Your task to perform on an android device: turn off location Image 0: 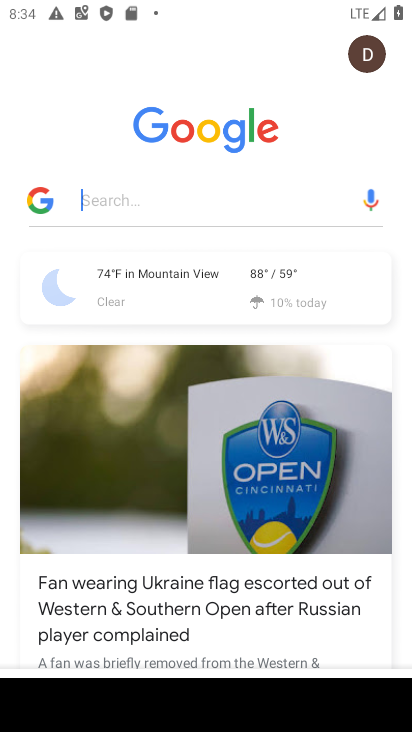
Step 0: drag from (243, 557) to (247, 291)
Your task to perform on an android device: turn off location Image 1: 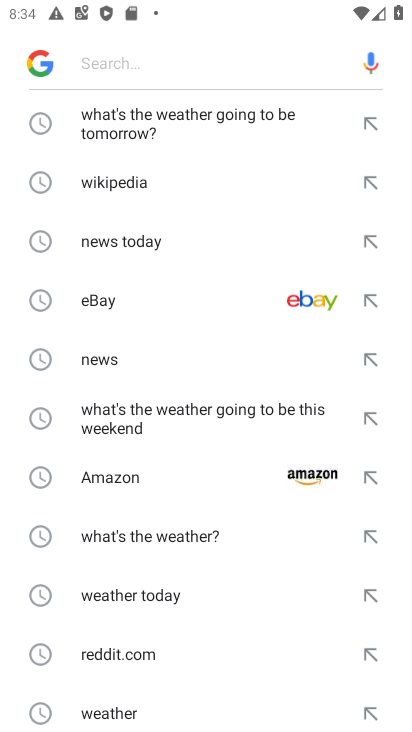
Step 1: press home button
Your task to perform on an android device: turn off location Image 2: 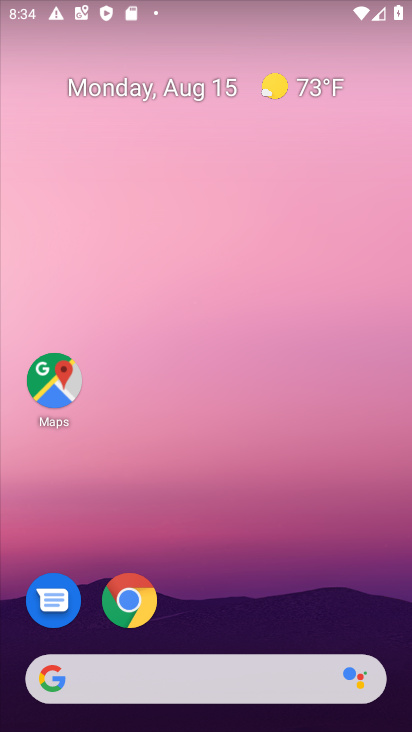
Step 2: drag from (219, 598) to (219, 26)
Your task to perform on an android device: turn off location Image 3: 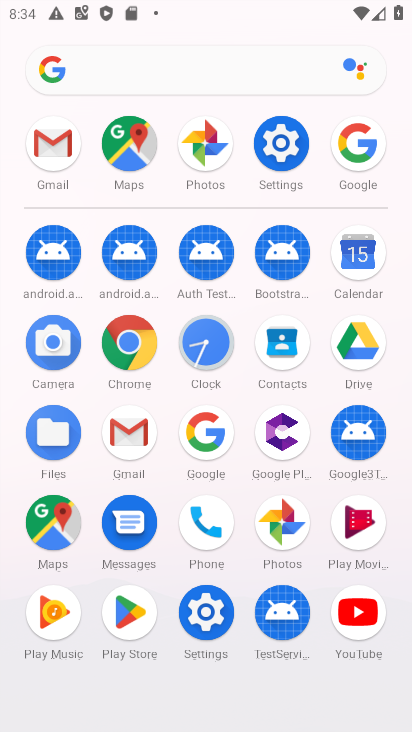
Step 3: click (259, 143)
Your task to perform on an android device: turn off location Image 4: 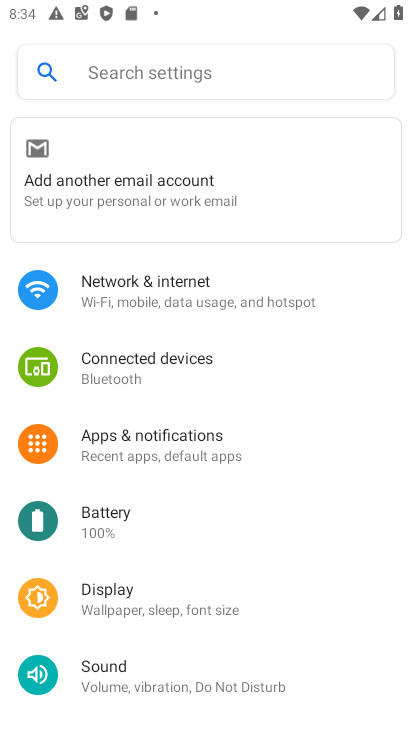
Step 4: drag from (127, 628) to (99, 343)
Your task to perform on an android device: turn off location Image 5: 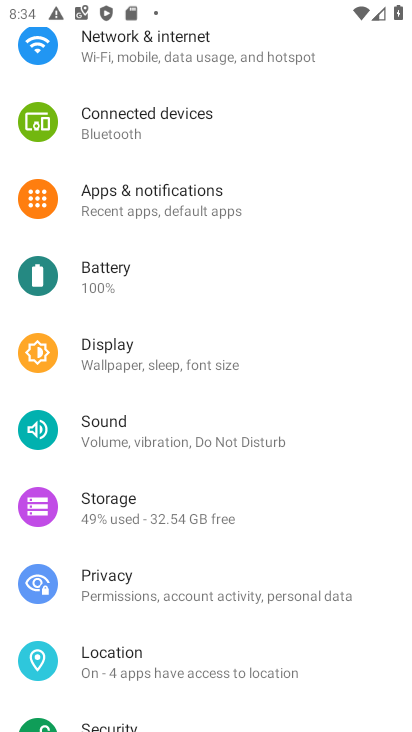
Step 5: click (95, 647)
Your task to perform on an android device: turn off location Image 6: 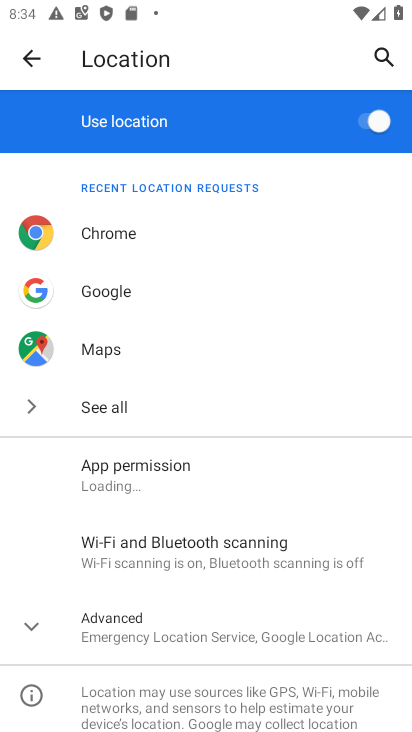
Step 6: click (370, 118)
Your task to perform on an android device: turn off location Image 7: 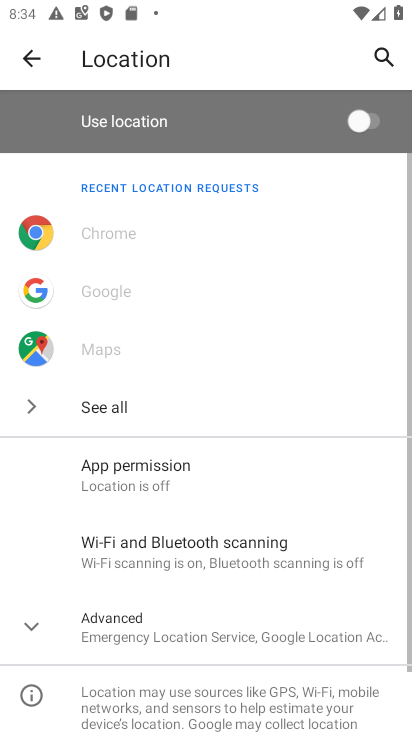
Step 7: task complete